Your task to perform on an android device: Go to Yahoo.com Image 0: 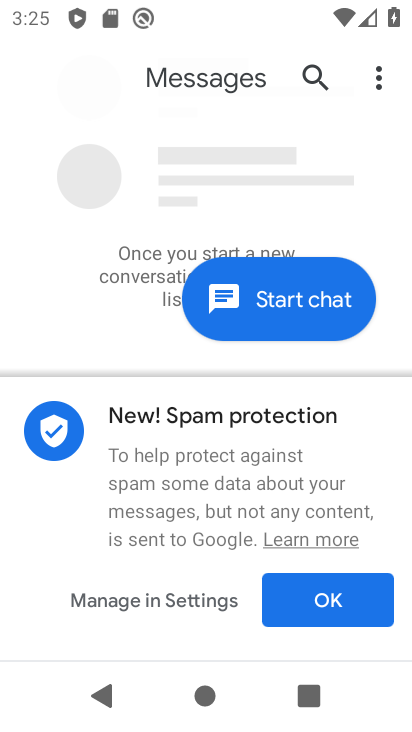
Step 0: press home button
Your task to perform on an android device: Go to Yahoo.com Image 1: 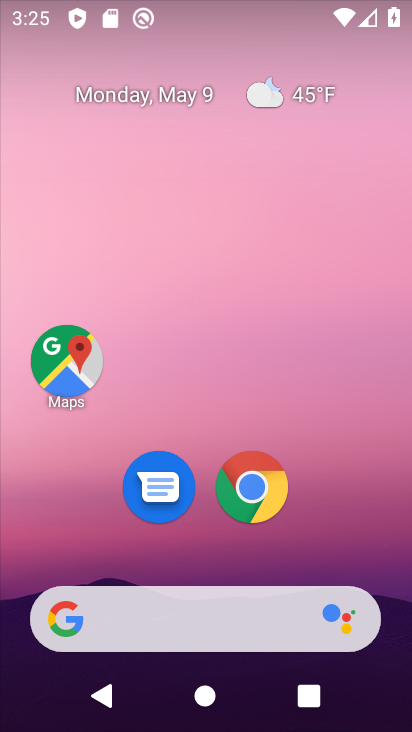
Step 1: drag from (169, 527) to (176, 232)
Your task to perform on an android device: Go to Yahoo.com Image 2: 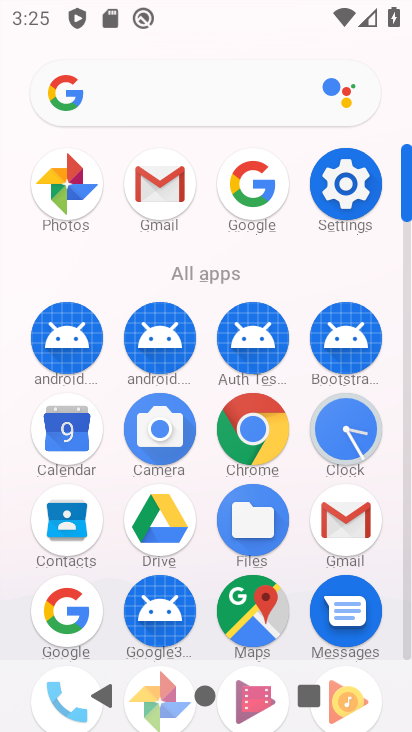
Step 2: click (233, 440)
Your task to perform on an android device: Go to Yahoo.com Image 3: 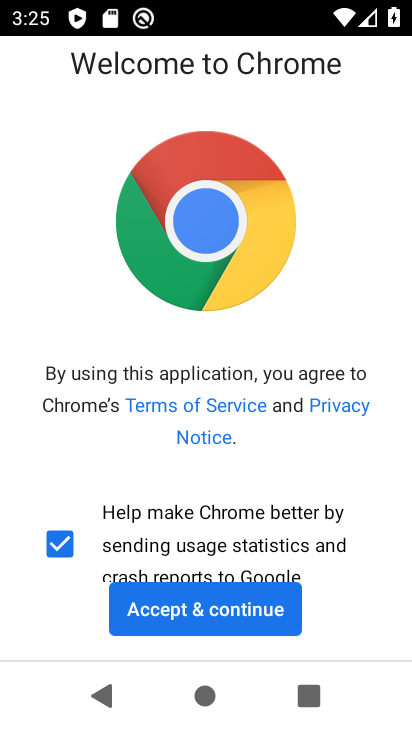
Step 3: click (225, 624)
Your task to perform on an android device: Go to Yahoo.com Image 4: 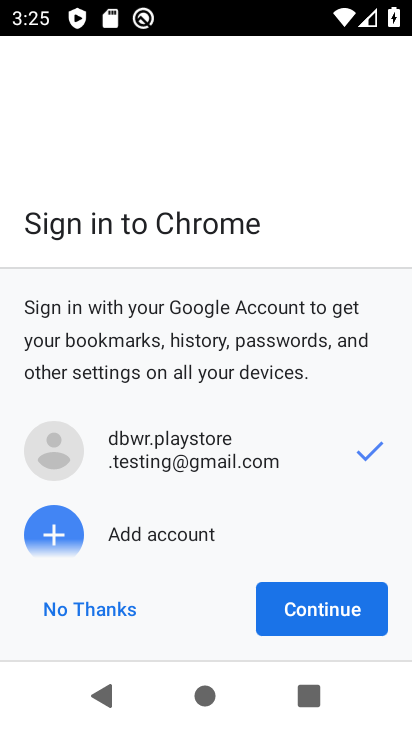
Step 4: click (327, 617)
Your task to perform on an android device: Go to Yahoo.com Image 5: 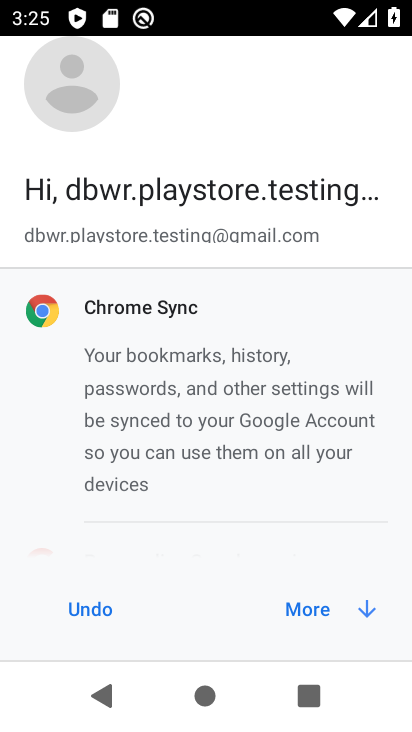
Step 5: click (307, 602)
Your task to perform on an android device: Go to Yahoo.com Image 6: 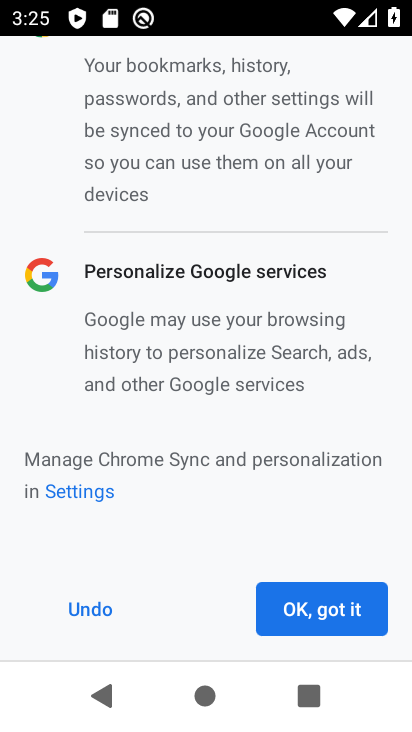
Step 6: click (287, 609)
Your task to perform on an android device: Go to Yahoo.com Image 7: 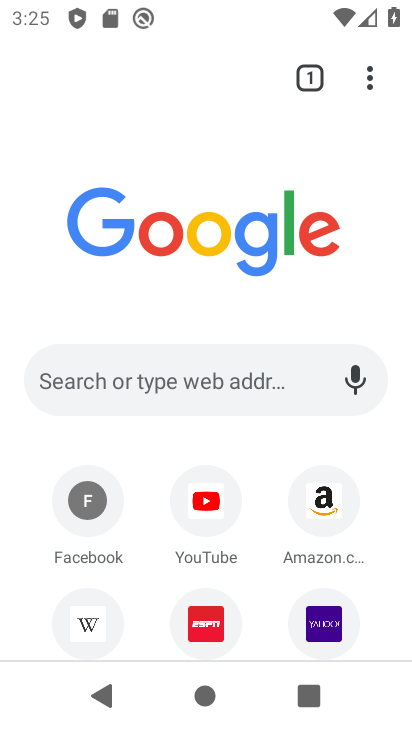
Step 7: click (316, 631)
Your task to perform on an android device: Go to Yahoo.com Image 8: 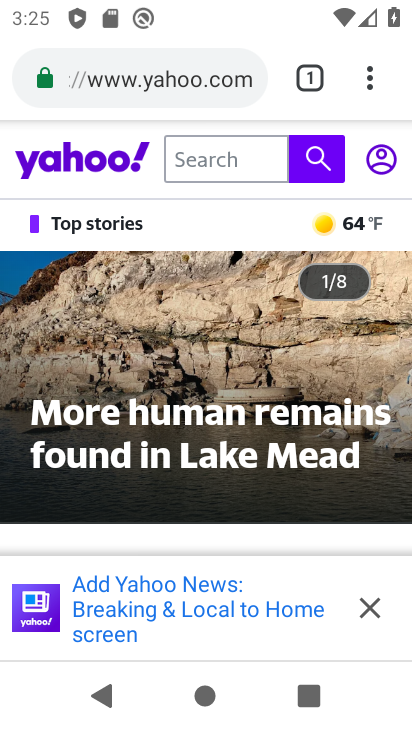
Step 8: click (367, 610)
Your task to perform on an android device: Go to Yahoo.com Image 9: 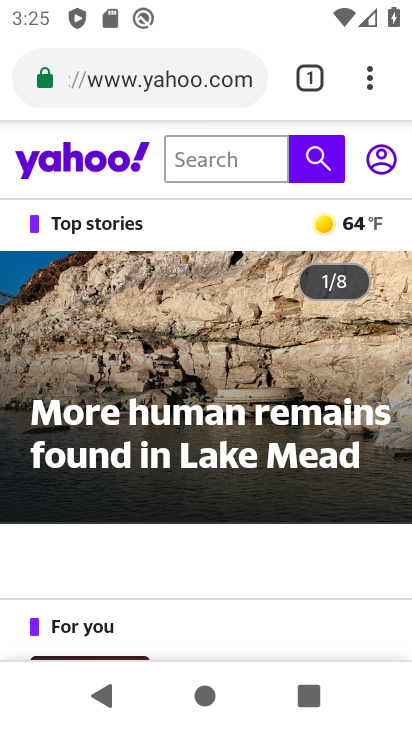
Step 9: task complete